Your task to perform on an android device: Find coffee shops on Maps Image 0: 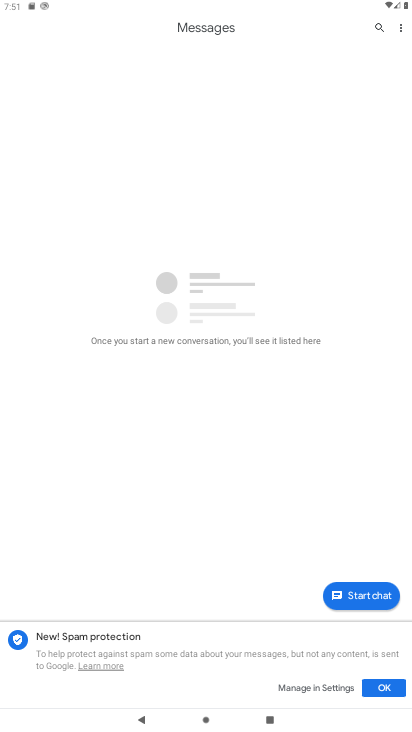
Step 0: press home button
Your task to perform on an android device: Find coffee shops on Maps Image 1: 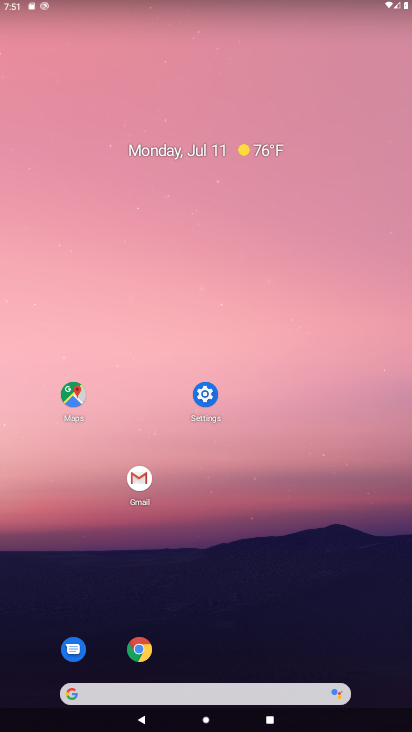
Step 1: click (67, 394)
Your task to perform on an android device: Find coffee shops on Maps Image 2: 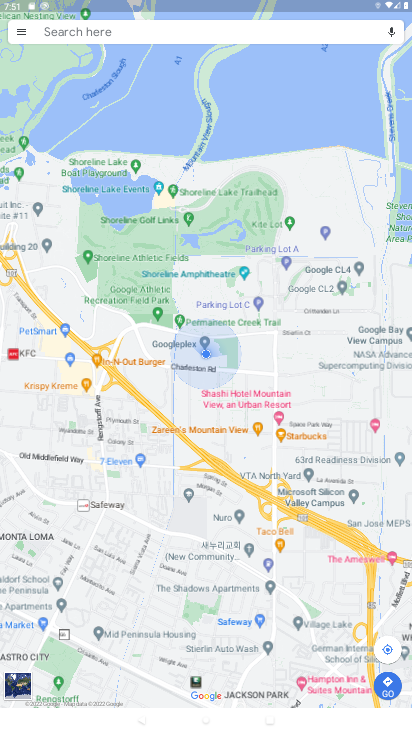
Step 2: click (161, 32)
Your task to perform on an android device: Find coffee shops on Maps Image 3: 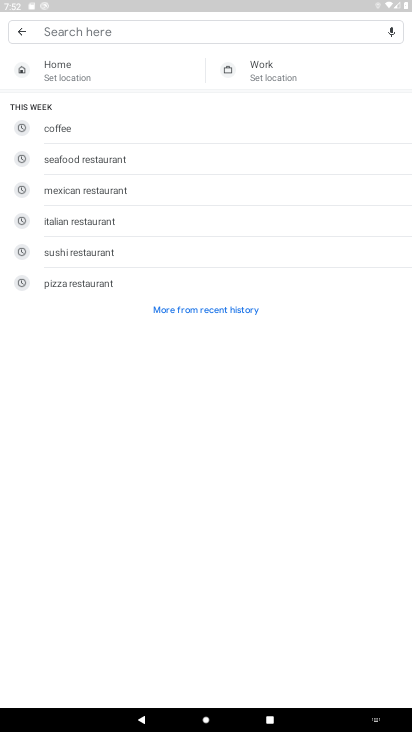
Step 3: type "coffee shops"
Your task to perform on an android device: Find coffee shops on Maps Image 4: 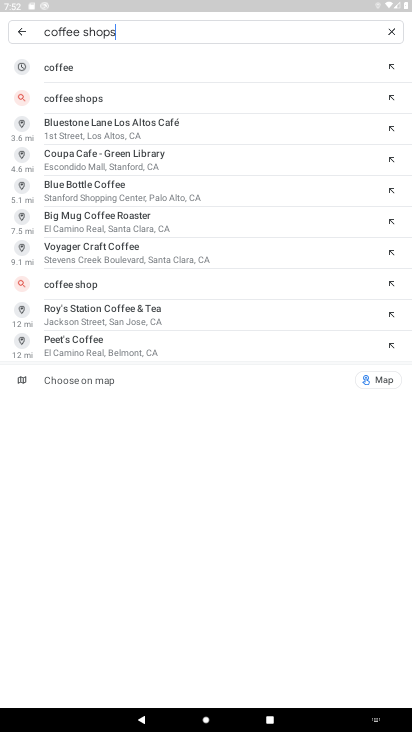
Step 4: click (111, 97)
Your task to perform on an android device: Find coffee shops on Maps Image 5: 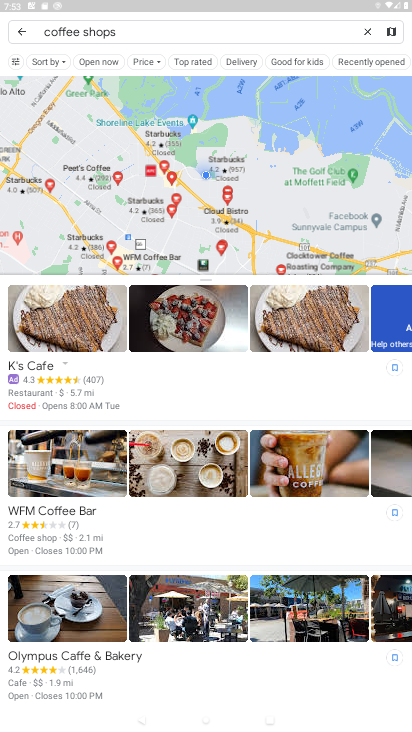
Step 5: task complete